Your task to perform on an android device: add a contact in the contacts app Image 0: 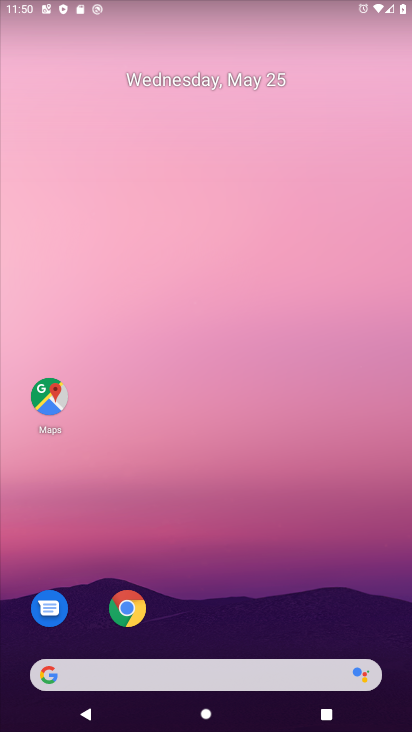
Step 0: drag from (224, 729) to (232, 193)
Your task to perform on an android device: add a contact in the contacts app Image 1: 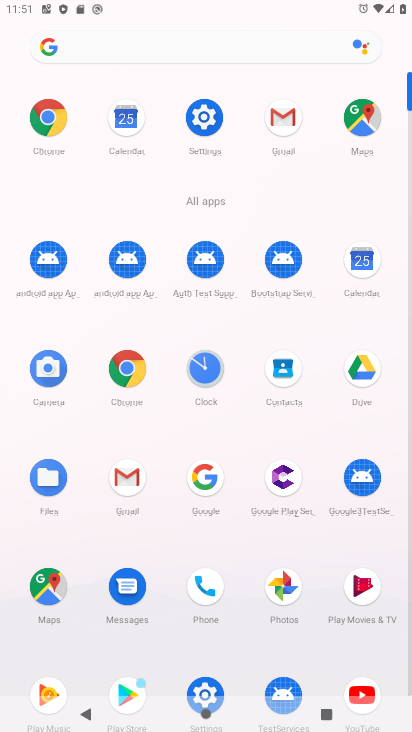
Step 1: click (278, 373)
Your task to perform on an android device: add a contact in the contacts app Image 2: 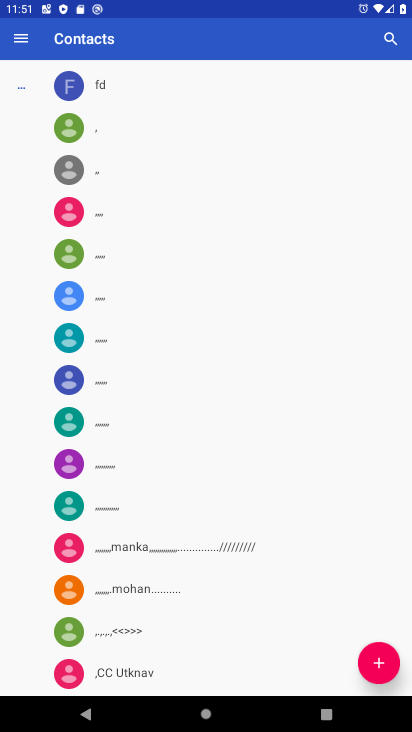
Step 2: click (380, 662)
Your task to perform on an android device: add a contact in the contacts app Image 3: 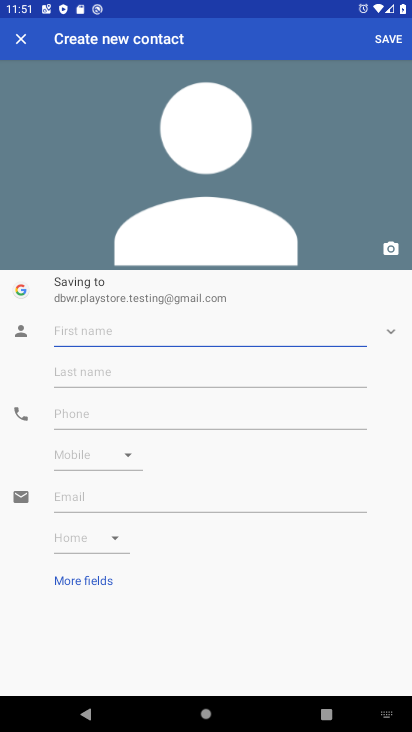
Step 3: type "zehr "
Your task to perform on an android device: add a contact in the contacts app Image 4: 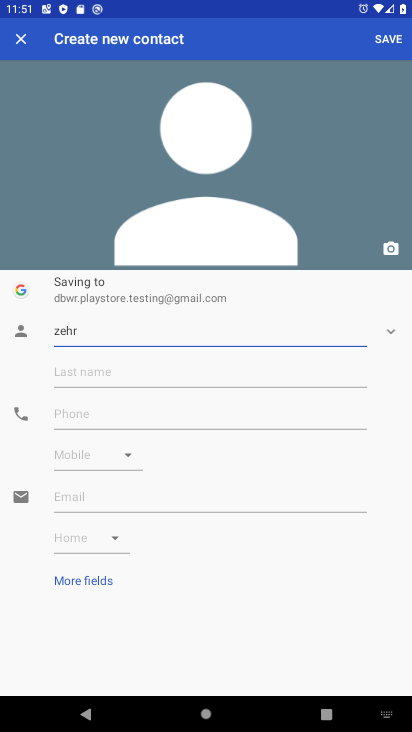
Step 4: click (125, 406)
Your task to perform on an android device: add a contact in the contacts app Image 5: 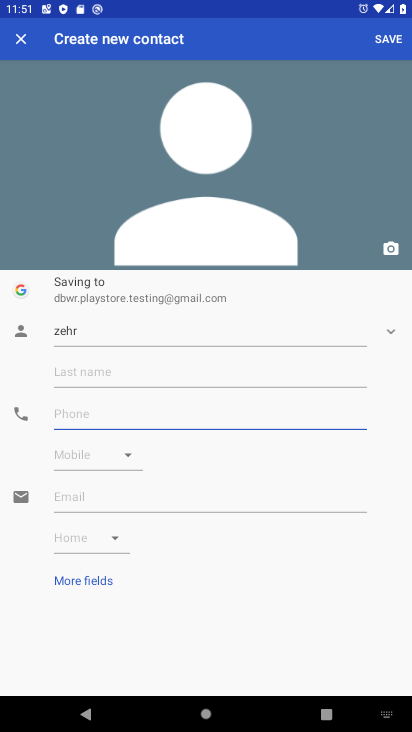
Step 5: type "666"
Your task to perform on an android device: add a contact in the contacts app Image 6: 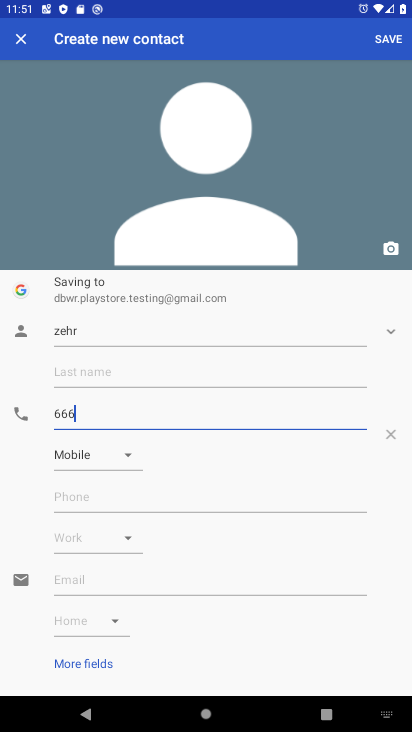
Step 6: click (387, 38)
Your task to perform on an android device: add a contact in the contacts app Image 7: 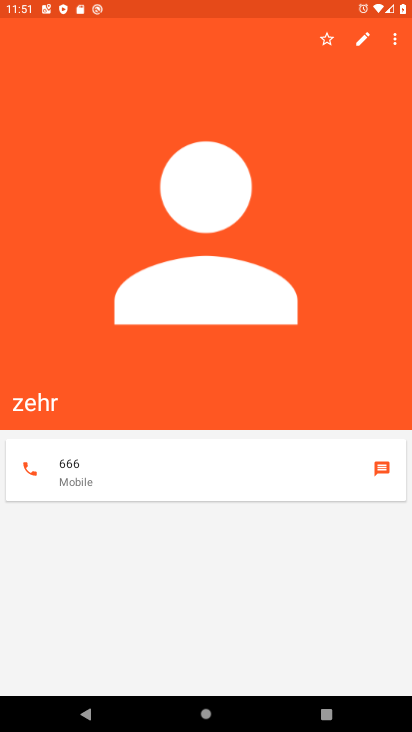
Step 7: task complete